Your task to perform on an android device: turn off data saver in the chrome app Image 0: 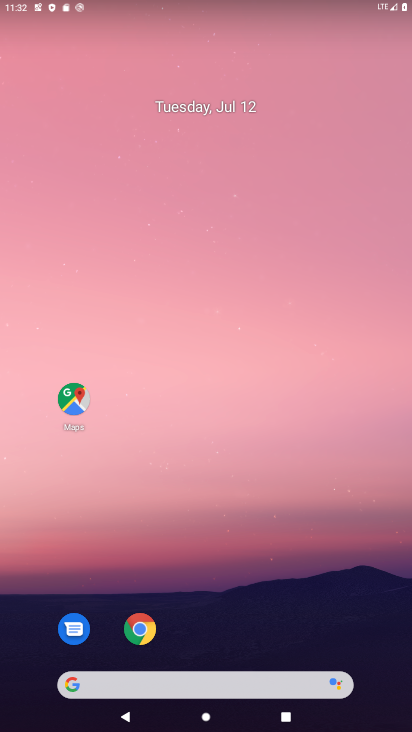
Step 0: click (140, 627)
Your task to perform on an android device: turn off data saver in the chrome app Image 1: 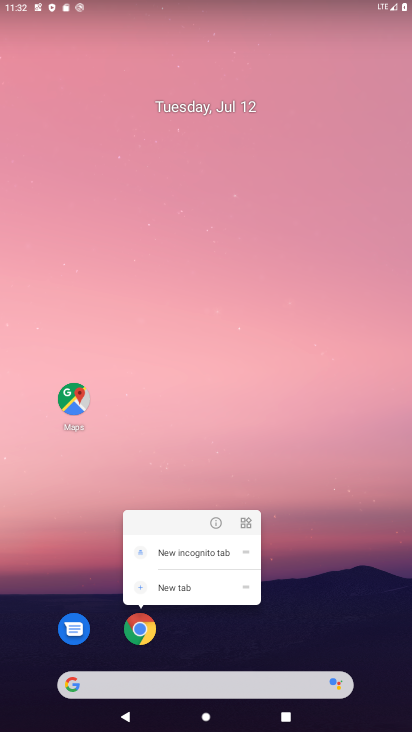
Step 1: click (257, 632)
Your task to perform on an android device: turn off data saver in the chrome app Image 2: 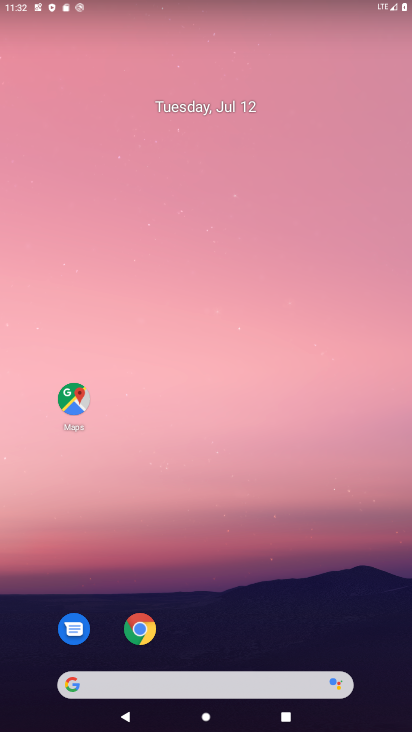
Step 2: click (140, 623)
Your task to perform on an android device: turn off data saver in the chrome app Image 3: 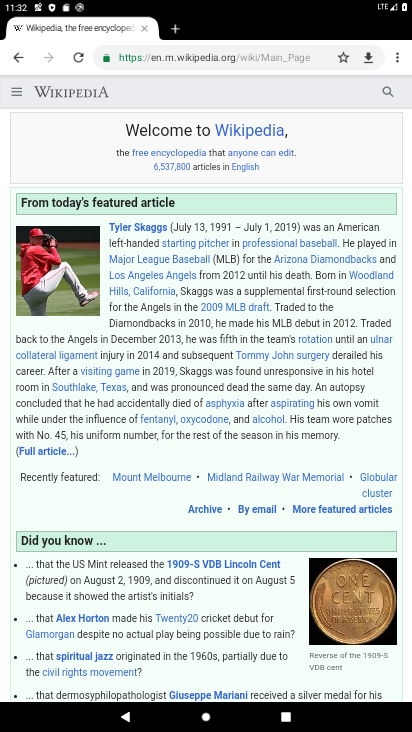
Step 3: click (399, 51)
Your task to perform on an android device: turn off data saver in the chrome app Image 4: 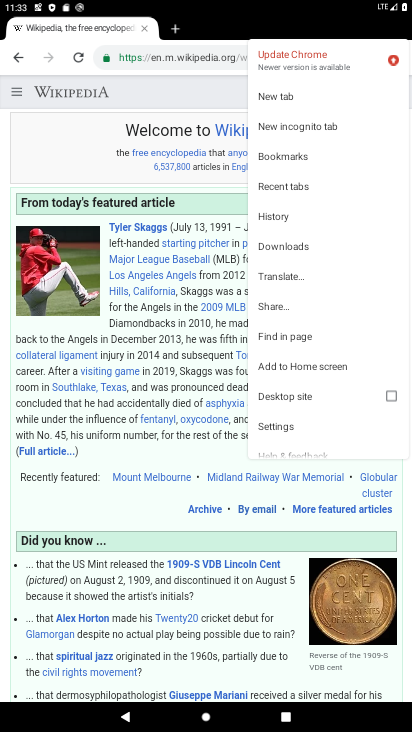
Step 4: click (301, 424)
Your task to perform on an android device: turn off data saver in the chrome app Image 5: 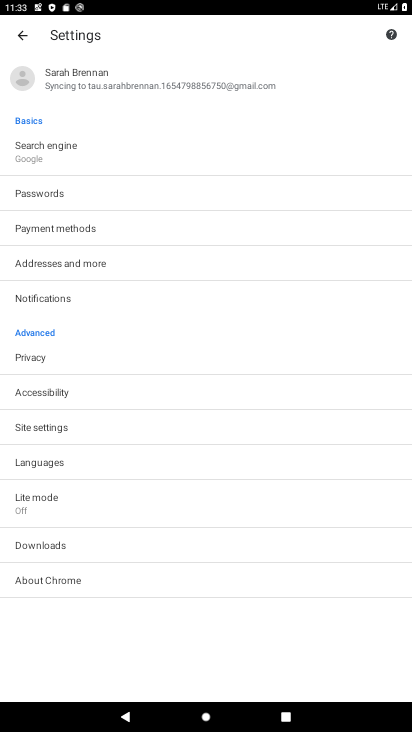
Step 5: click (70, 503)
Your task to perform on an android device: turn off data saver in the chrome app Image 6: 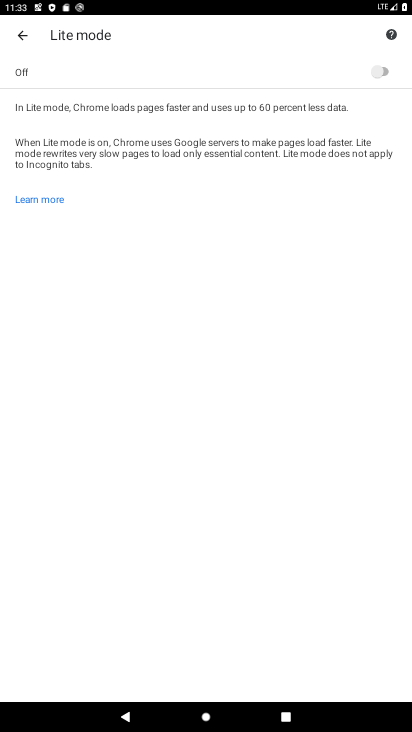
Step 6: task complete